Your task to perform on an android device: Go to sound settings Image 0: 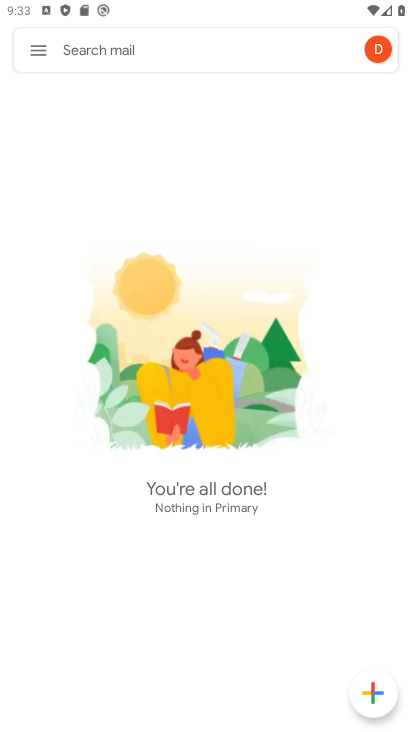
Step 0: press home button
Your task to perform on an android device: Go to sound settings Image 1: 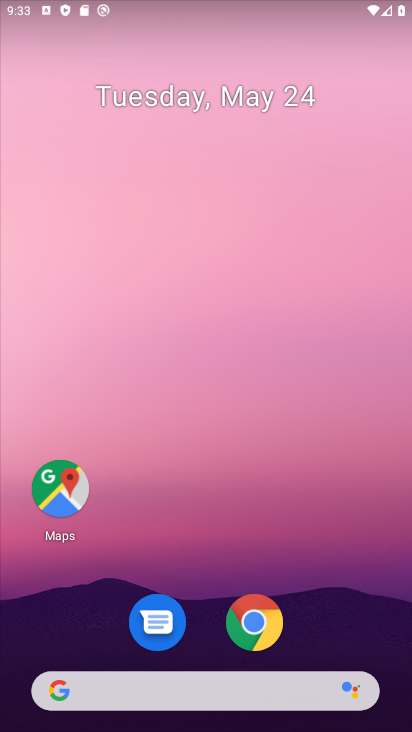
Step 1: drag from (203, 698) to (326, 136)
Your task to perform on an android device: Go to sound settings Image 2: 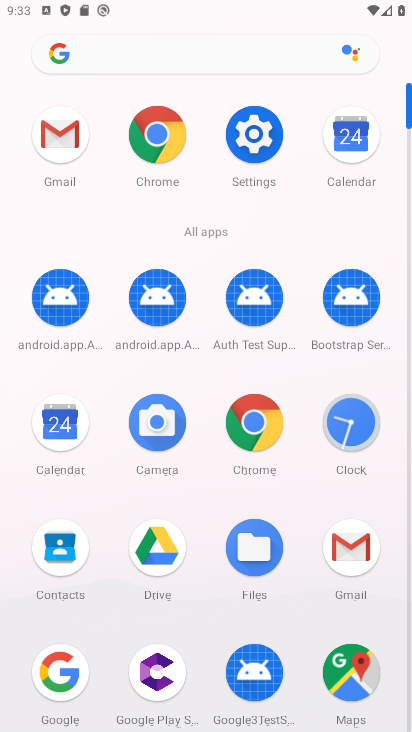
Step 2: click (243, 145)
Your task to perform on an android device: Go to sound settings Image 3: 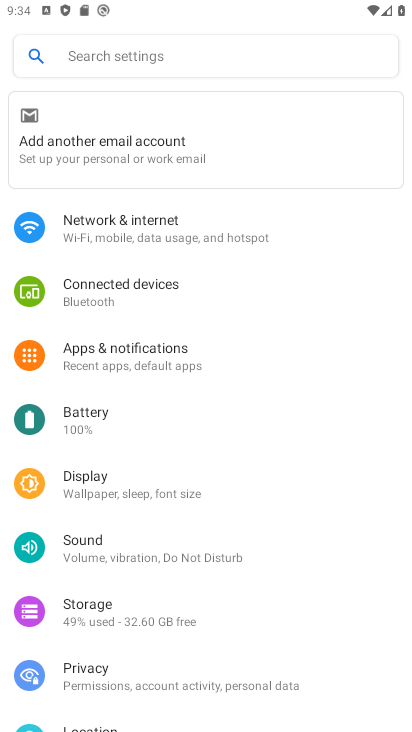
Step 3: click (128, 66)
Your task to perform on an android device: Go to sound settings Image 4: 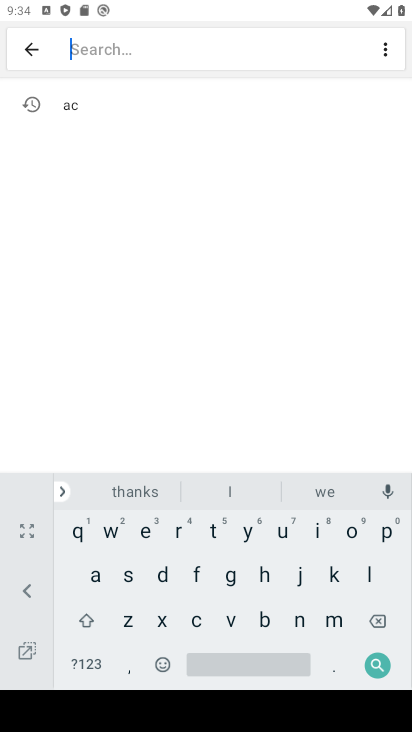
Step 4: click (23, 519)
Your task to perform on an android device: Go to sound settings Image 5: 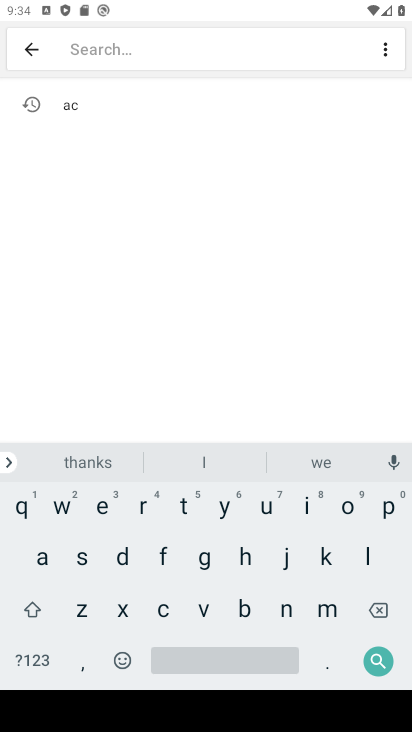
Step 5: click (79, 557)
Your task to perform on an android device: Go to sound settings Image 6: 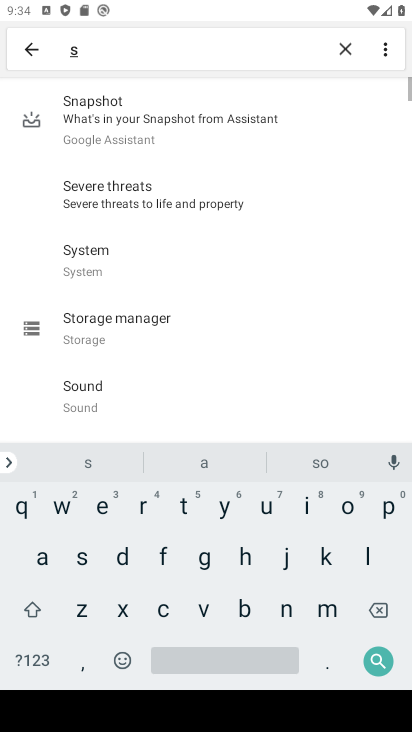
Step 6: click (353, 517)
Your task to perform on an android device: Go to sound settings Image 7: 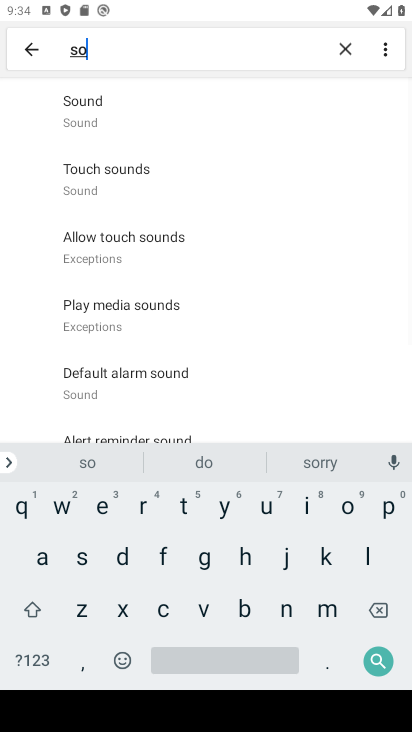
Step 7: click (117, 101)
Your task to perform on an android device: Go to sound settings Image 8: 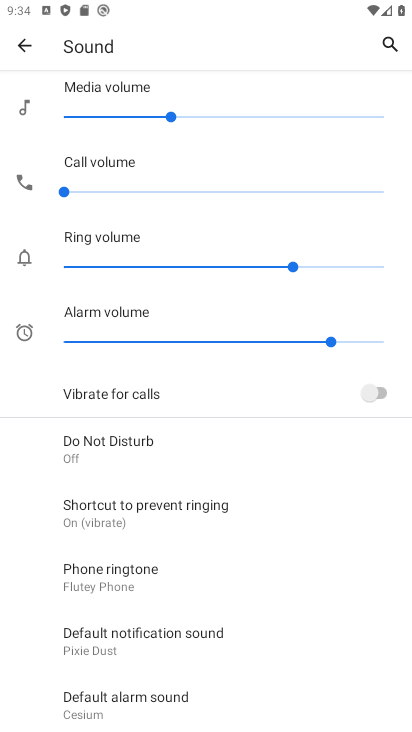
Step 8: task complete